Your task to perform on an android device: uninstall "Google Home" Image 0: 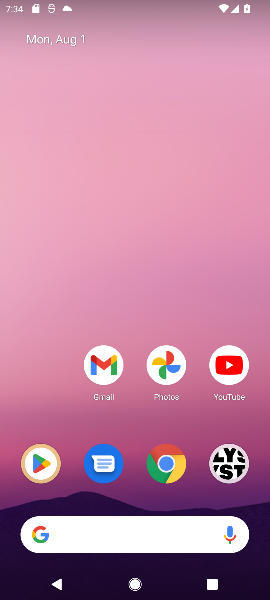
Step 0: click (57, 472)
Your task to perform on an android device: uninstall "Google Home" Image 1: 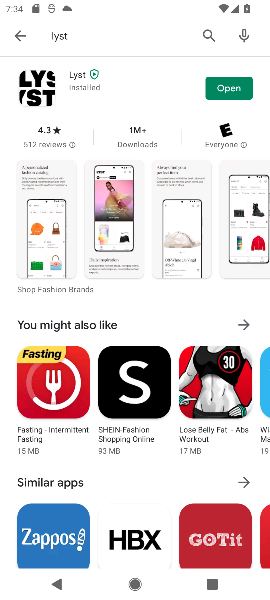
Step 1: click (214, 35)
Your task to perform on an android device: uninstall "Google Home" Image 2: 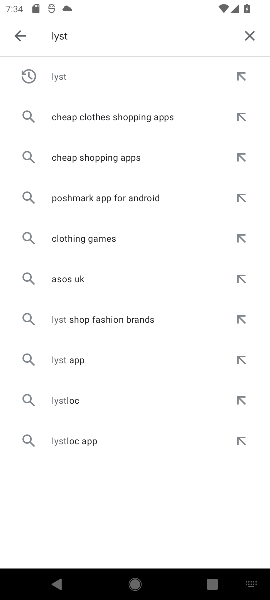
Step 2: click (256, 47)
Your task to perform on an android device: uninstall "Google Home" Image 3: 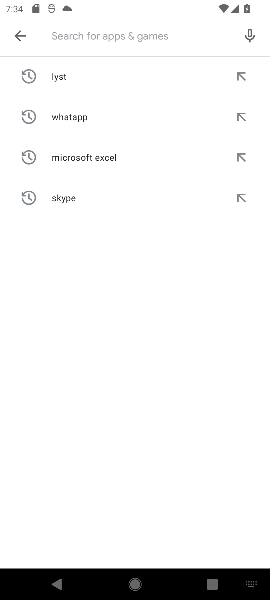
Step 3: type "google home"
Your task to perform on an android device: uninstall "Google Home" Image 4: 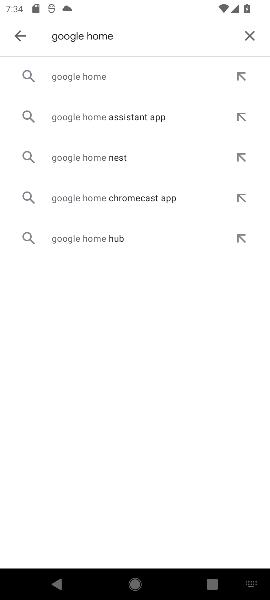
Step 4: click (154, 83)
Your task to perform on an android device: uninstall "Google Home" Image 5: 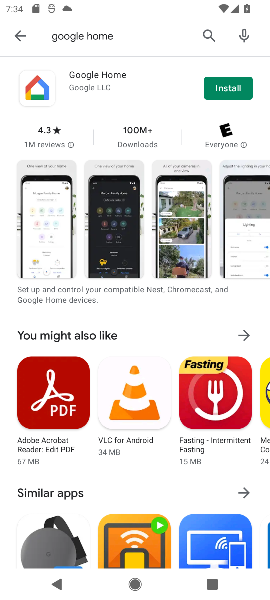
Step 5: click (230, 76)
Your task to perform on an android device: uninstall "Google Home" Image 6: 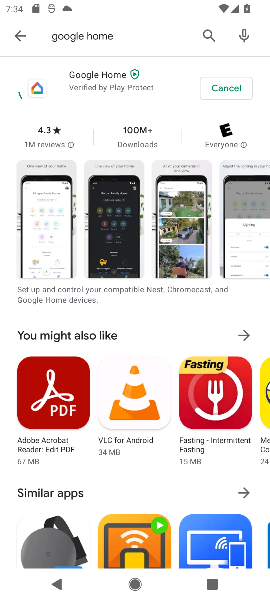
Step 6: task complete